Your task to perform on an android device: open chrome and create a bookmark for the current page Image 0: 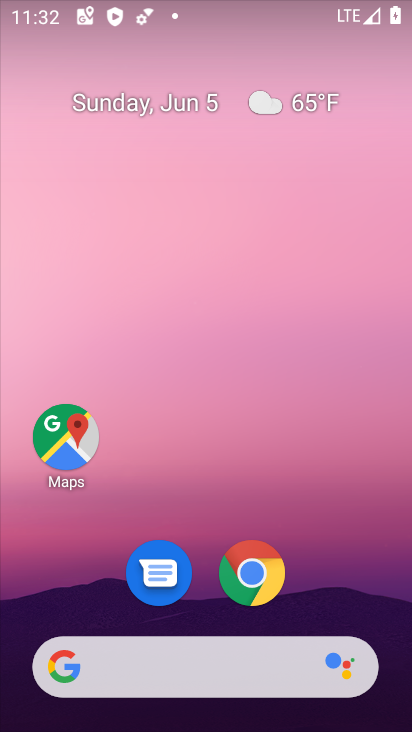
Step 0: drag from (224, 624) to (221, 137)
Your task to perform on an android device: open chrome and create a bookmark for the current page Image 1: 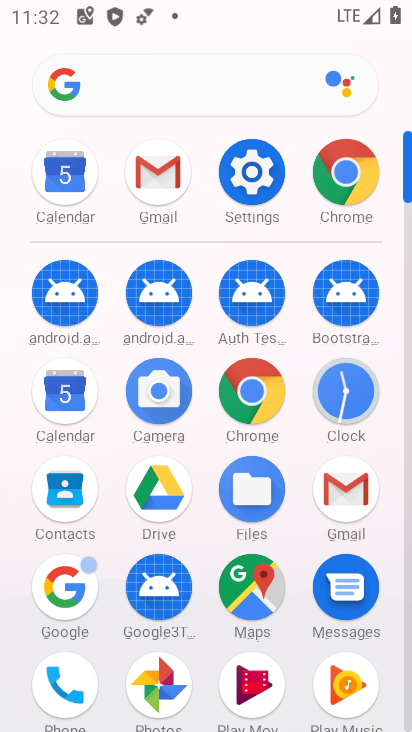
Step 1: click (254, 403)
Your task to perform on an android device: open chrome and create a bookmark for the current page Image 2: 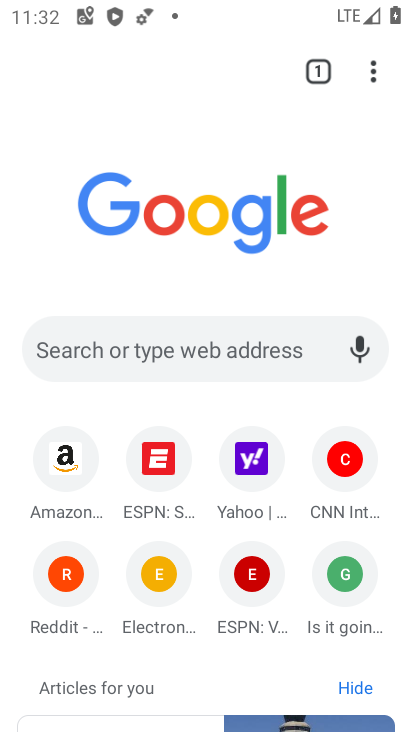
Step 2: click (370, 79)
Your task to perform on an android device: open chrome and create a bookmark for the current page Image 3: 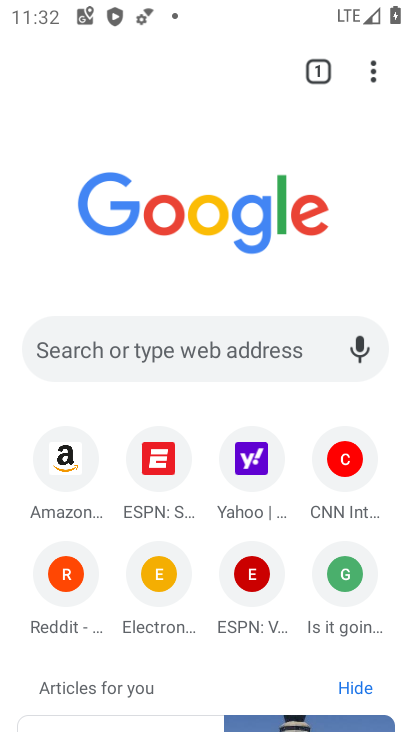
Step 3: click (372, 76)
Your task to perform on an android device: open chrome and create a bookmark for the current page Image 4: 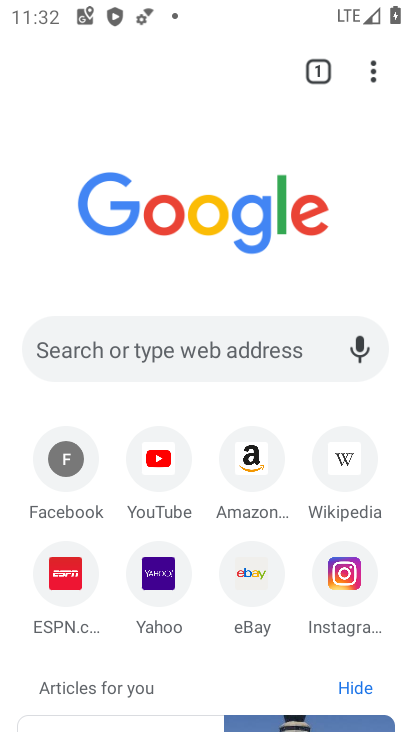
Step 4: task complete